Your task to perform on an android device: Go to Google Image 0: 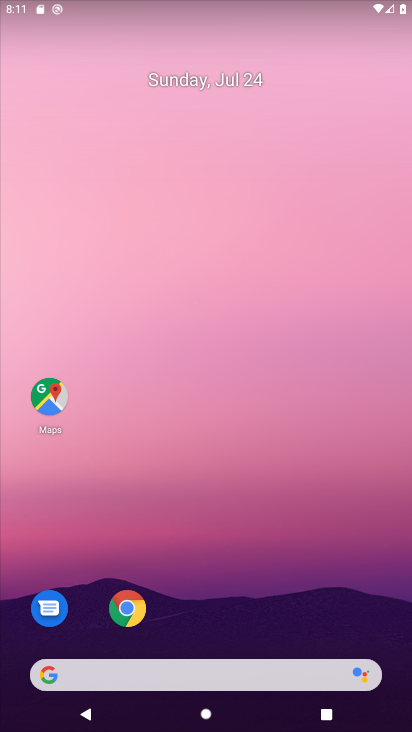
Step 0: click (164, 685)
Your task to perform on an android device: Go to Google Image 1: 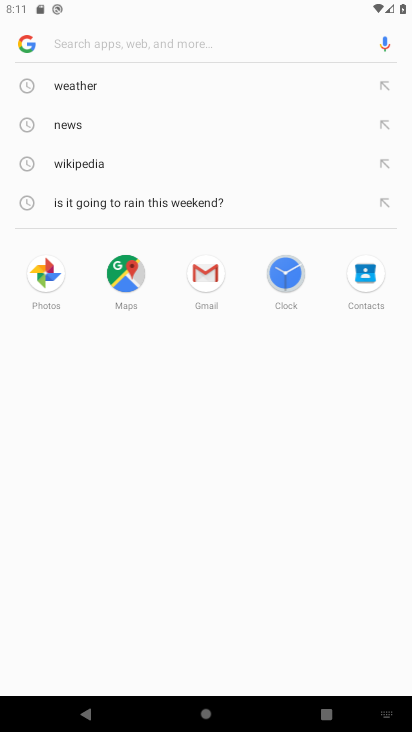
Step 1: task complete